Your task to perform on an android device: Do I have any events tomorrow? Image 0: 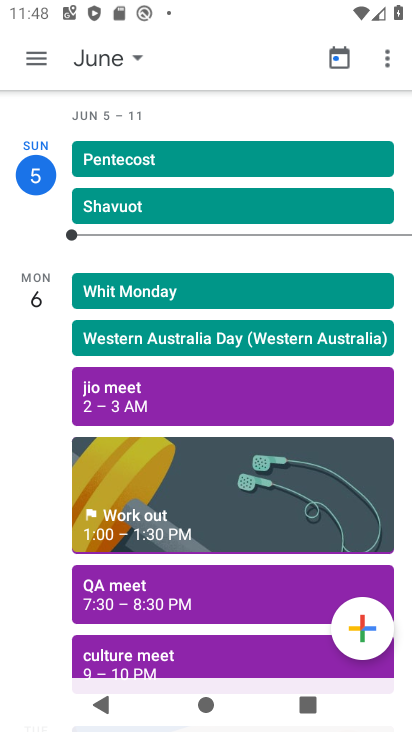
Step 0: drag from (25, 499) to (29, 424)
Your task to perform on an android device: Do I have any events tomorrow? Image 1: 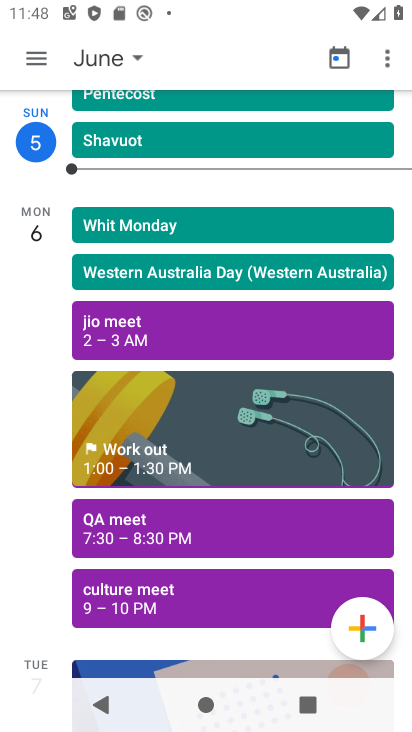
Step 1: task complete